Your task to perform on an android device: show emergency info Image 0: 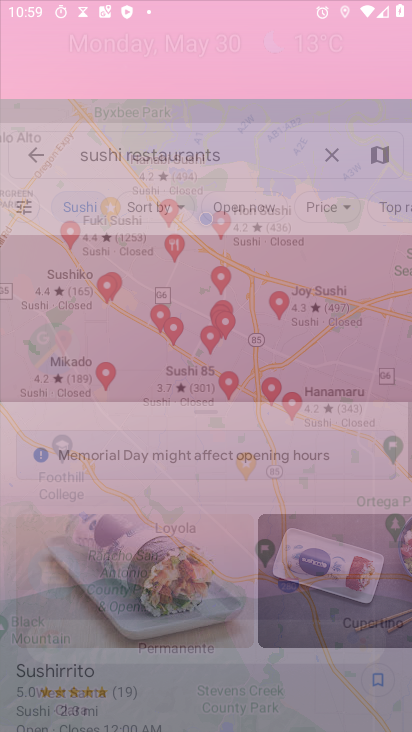
Step 0: drag from (354, 604) to (326, 5)
Your task to perform on an android device: show emergency info Image 1: 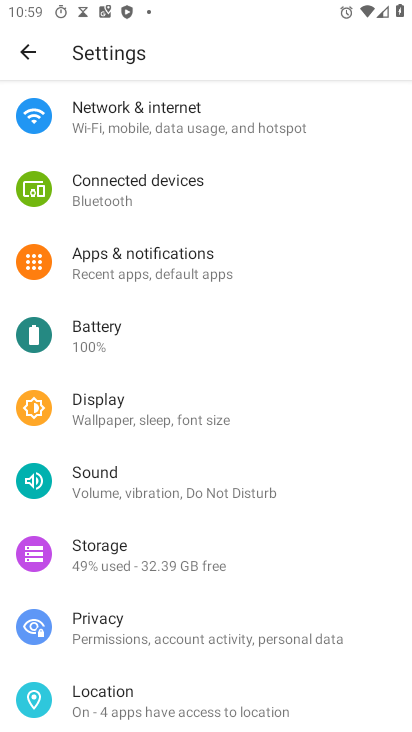
Step 1: drag from (215, 608) to (176, 66)
Your task to perform on an android device: show emergency info Image 2: 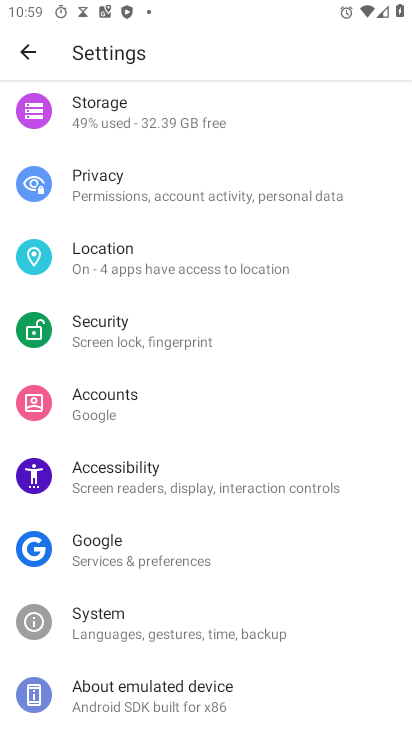
Step 2: drag from (237, 657) to (272, 226)
Your task to perform on an android device: show emergency info Image 3: 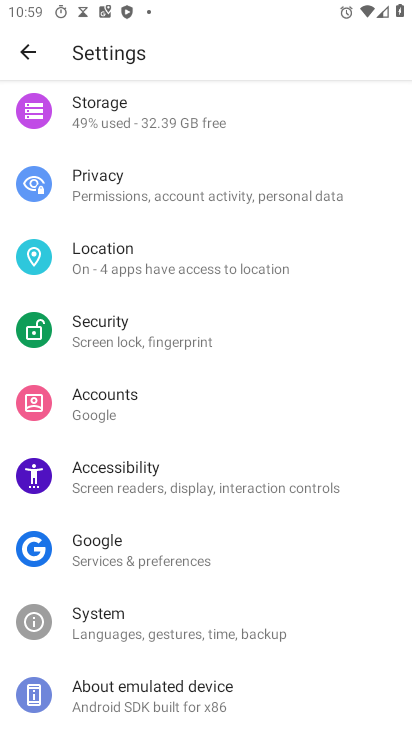
Step 3: click (137, 703)
Your task to perform on an android device: show emergency info Image 4: 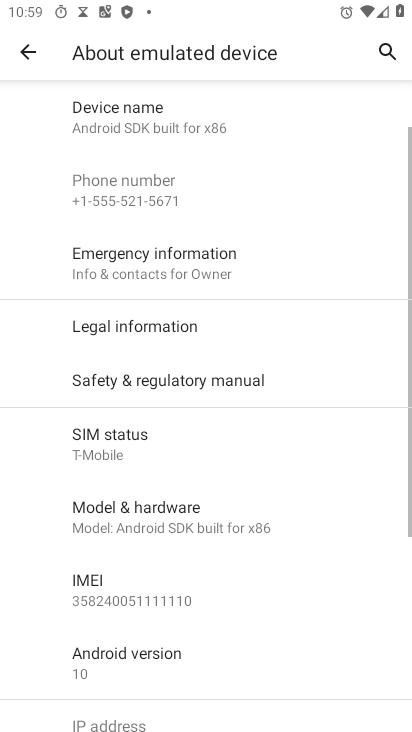
Step 4: click (183, 264)
Your task to perform on an android device: show emergency info Image 5: 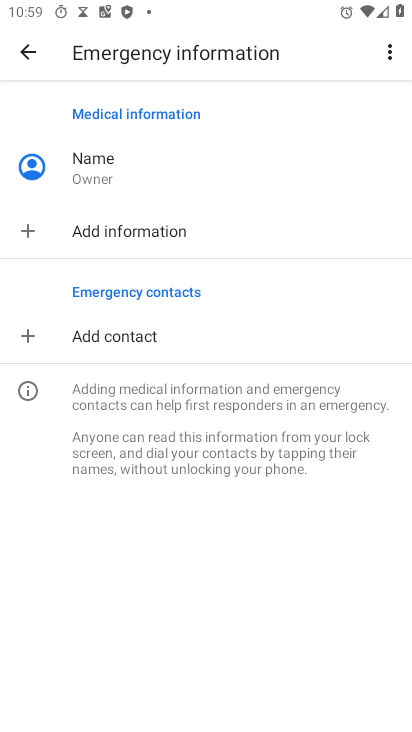
Step 5: task complete